Your task to perform on an android device: move an email to a new category in the gmail app Image 0: 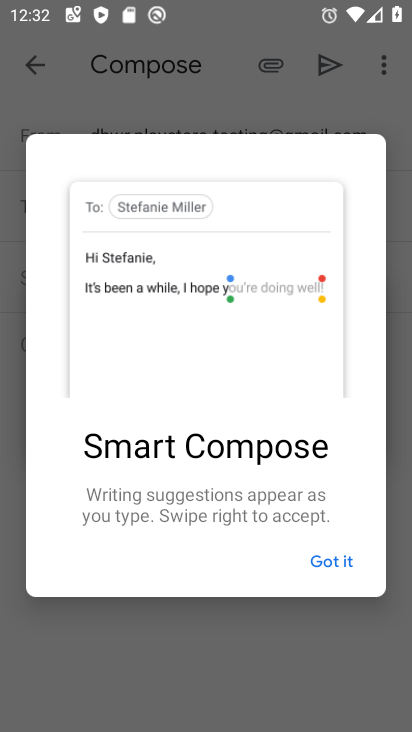
Step 0: press home button
Your task to perform on an android device: move an email to a new category in the gmail app Image 1: 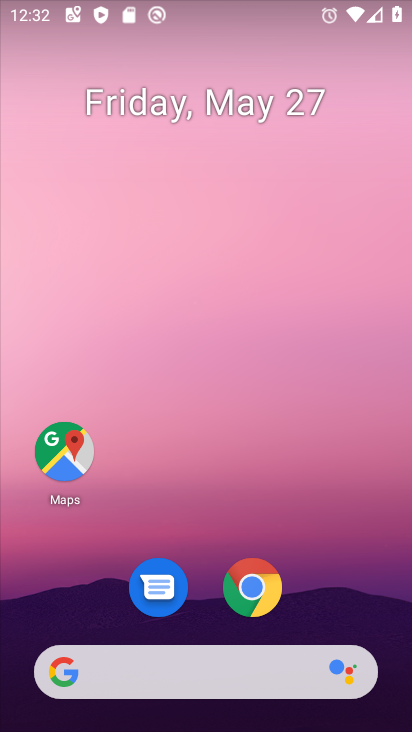
Step 1: drag from (228, 712) to (356, 40)
Your task to perform on an android device: move an email to a new category in the gmail app Image 2: 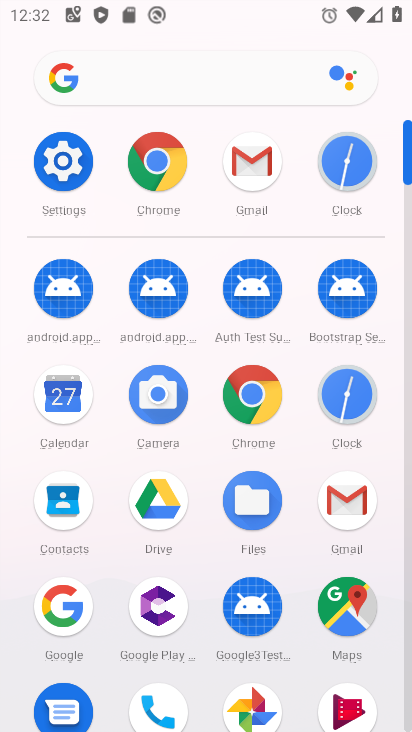
Step 2: click (260, 172)
Your task to perform on an android device: move an email to a new category in the gmail app Image 3: 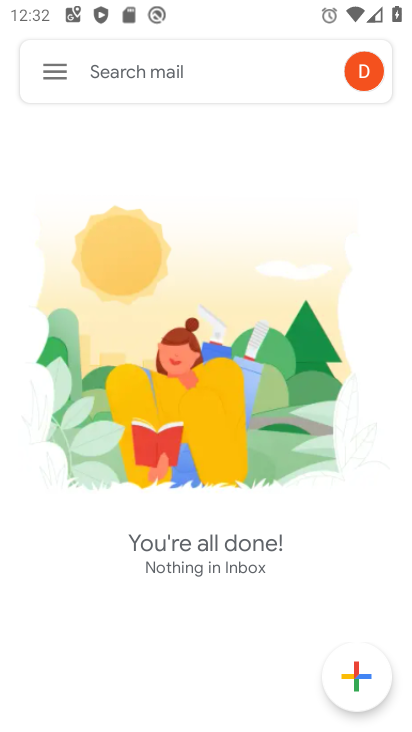
Step 3: click (47, 76)
Your task to perform on an android device: move an email to a new category in the gmail app Image 4: 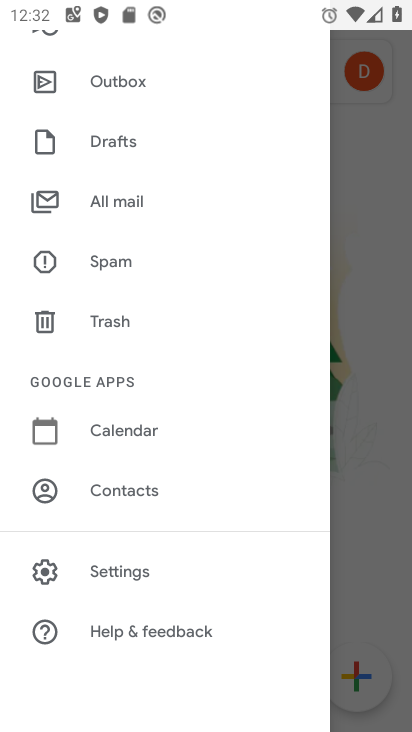
Step 4: click (132, 574)
Your task to perform on an android device: move an email to a new category in the gmail app Image 5: 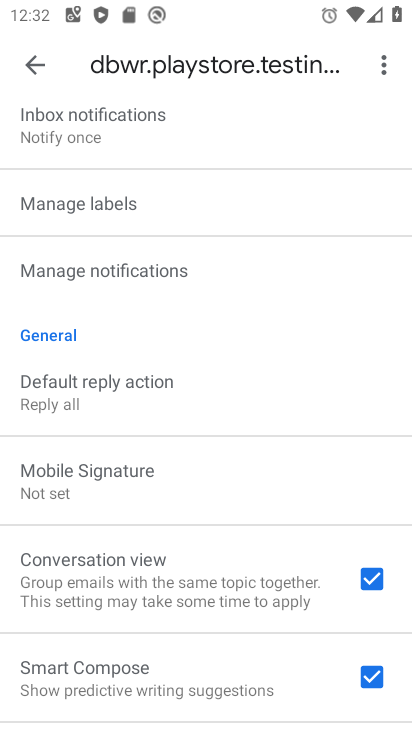
Step 5: drag from (109, 226) to (109, 521)
Your task to perform on an android device: move an email to a new category in the gmail app Image 6: 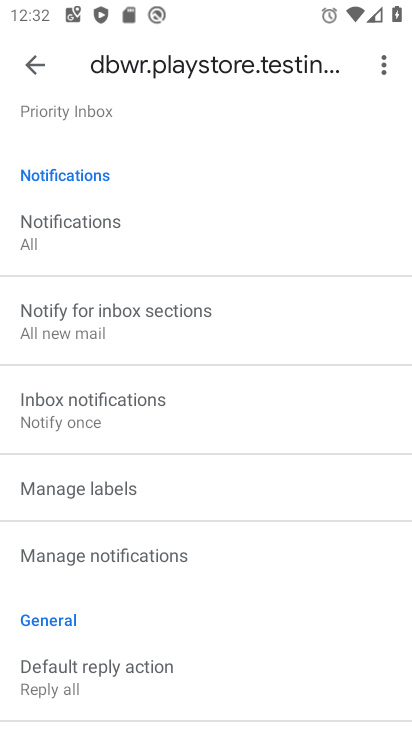
Step 6: drag from (123, 222) to (128, 490)
Your task to perform on an android device: move an email to a new category in the gmail app Image 7: 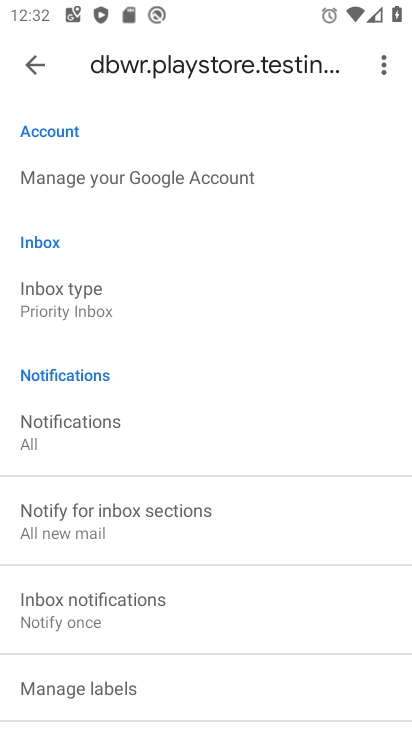
Step 7: click (123, 297)
Your task to perform on an android device: move an email to a new category in the gmail app Image 8: 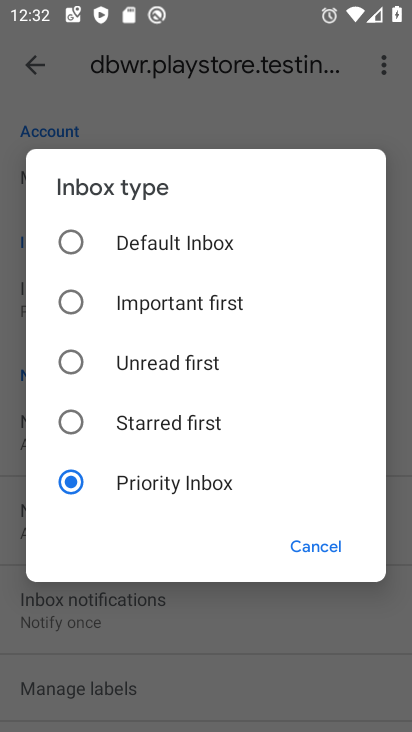
Step 8: click (135, 249)
Your task to perform on an android device: move an email to a new category in the gmail app Image 9: 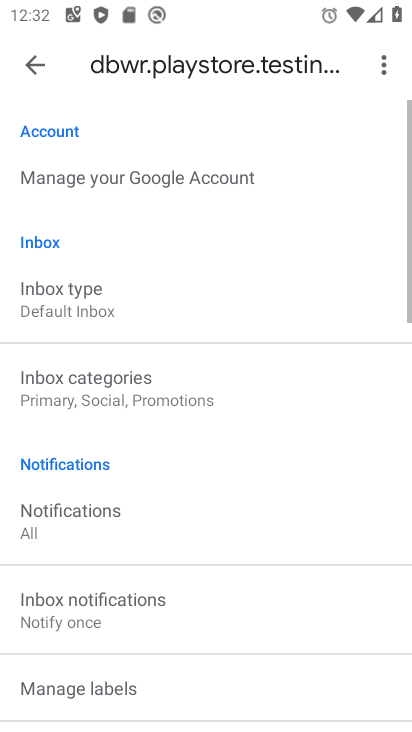
Step 9: click (105, 389)
Your task to perform on an android device: move an email to a new category in the gmail app Image 10: 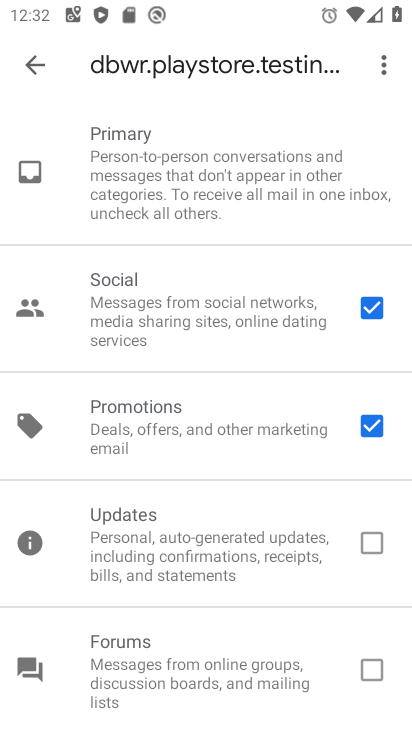
Step 10: click (366, 431)
Your task to perform on an android device: move an email to a new category in the gmail app Image 11: 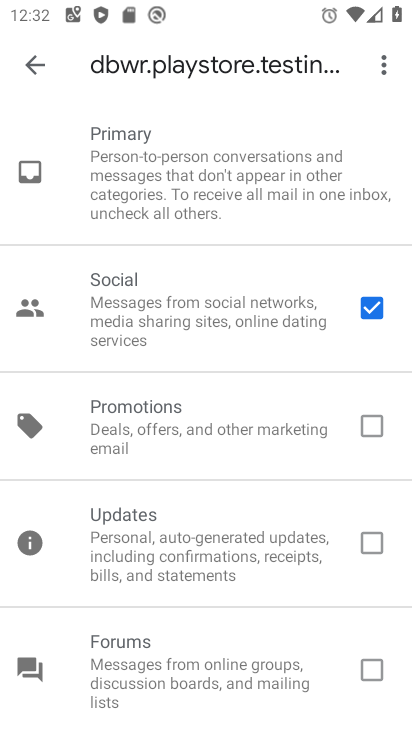
Step 11: task complete